Your task to perform on an android device: Open CNN.com Image 0: 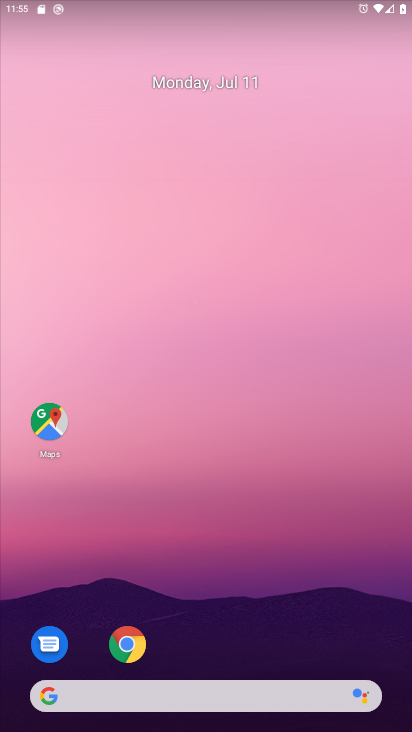
Step 0: click (129, 638)
Your task to perform on an android device: Open CNN.com Image 1: 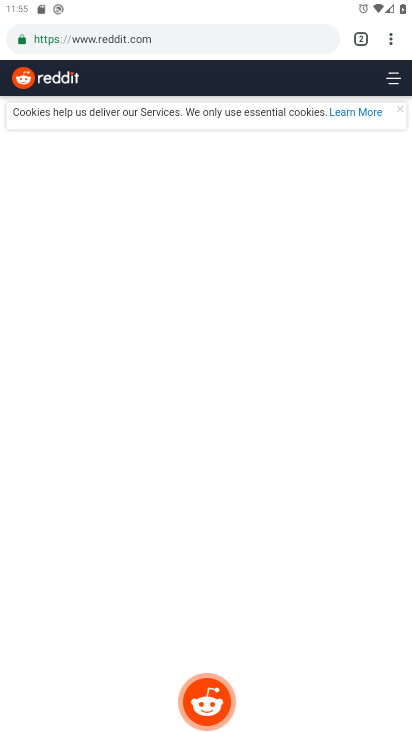
Step 1: click (296, 33)
Your task to perform on an android device: Open CNN.com Image 2: 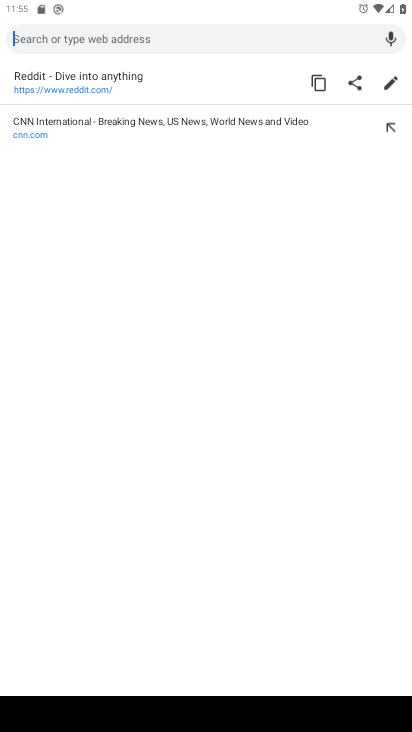
Step 2: type "CNN.com"
Your task to perform on an android device: Open CNN.com Image 3: 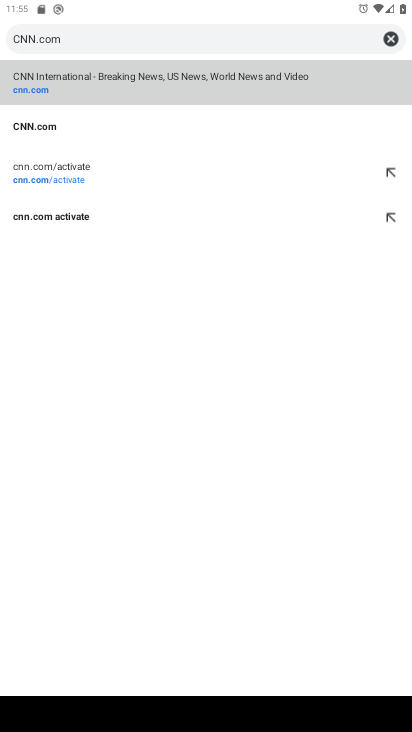
Step 3: click (211, 78)
Your task to perform on an android device: Open CNN.com Image 4: 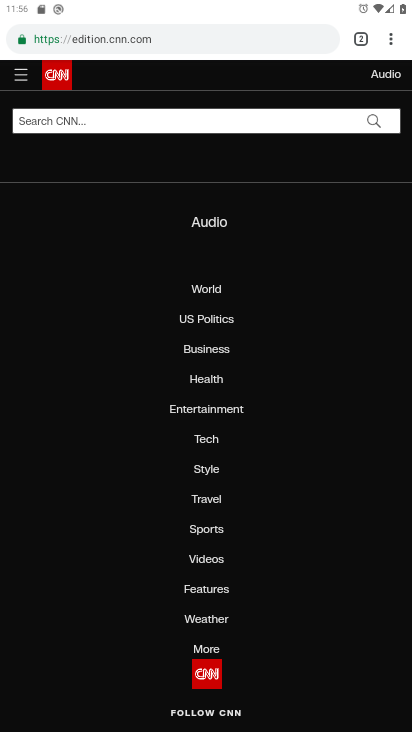
Step 4: task complete